Your task to perform on an android device: turn off javascript in the chrome app Image 0: 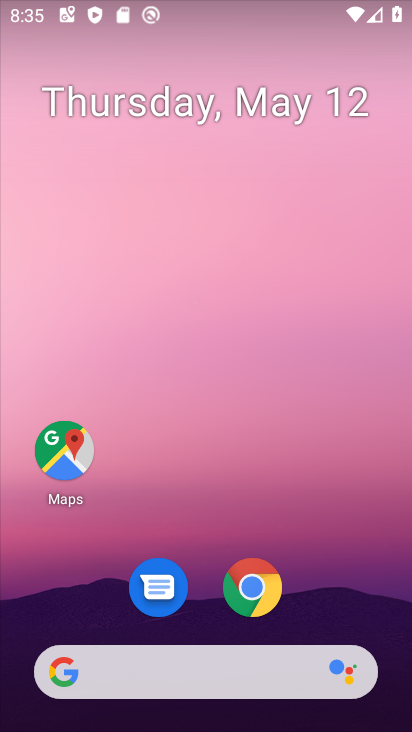
Step 0: drag from (381, 577) to (382, 206)
Your task to perform on an android device: turn off javascript in the chrome app Image 1: 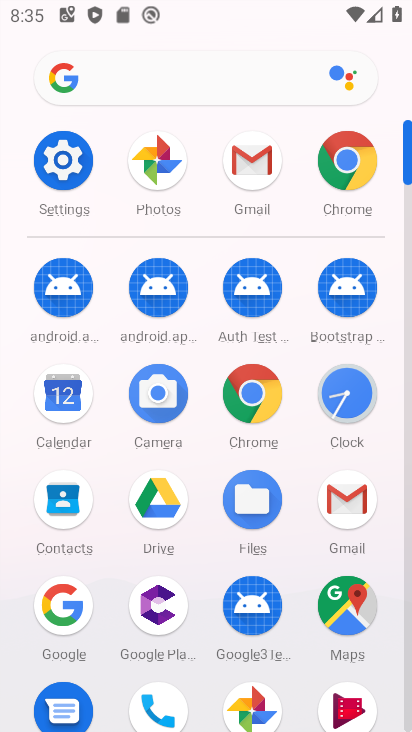
Step 1: click (272, 387)
Your task to perform on an android device: turn off javascript in the chrome app Image 2: 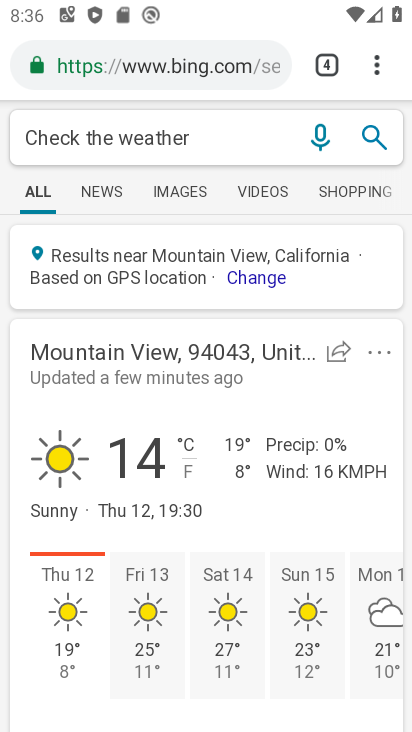
Step 2: click (364, 62)
Your task to perform on an android device: turn off javascript in the chrome app Image 3: 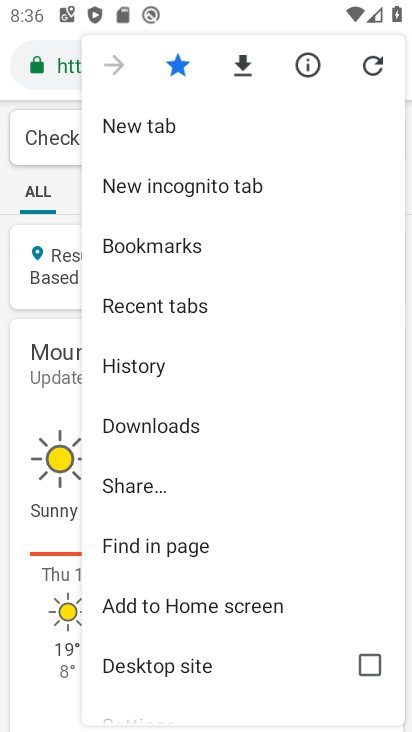
Step 3: drag from (213, 539) to (276, 191)
Your task to perform on an android device: turn off javascript in the chrome app Image 4: 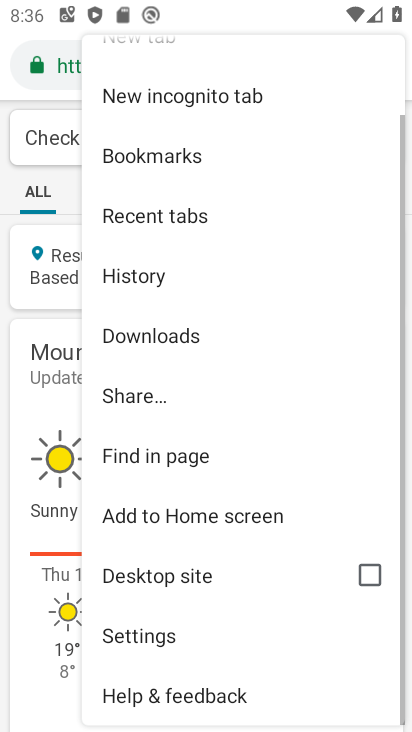
Step 4: click (186, 635)
Your task to perform on an android device: turn off javascript in the chrome app Image 5: 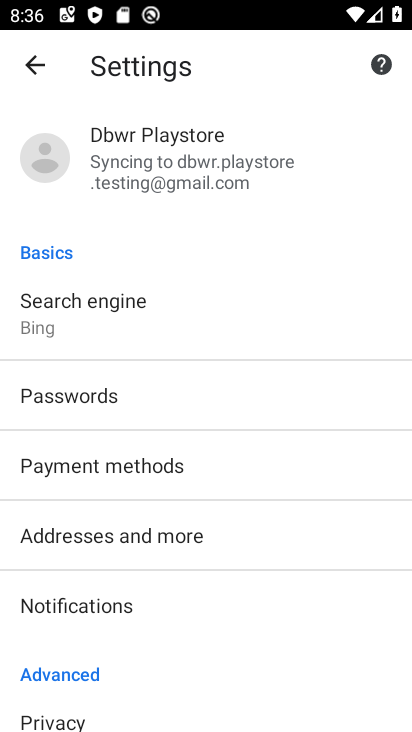
Step 5: drag from (264, 637) to (277, 220)
Your task to perform on an android device: turn off javascript in the chrome app Image 6: 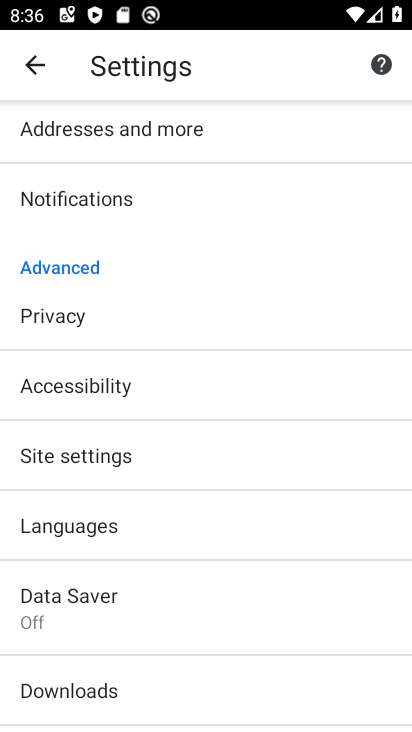
Step 6: drag from (223, 629) to (233, 217)
Your task to perform on an android device: turn off javascript in the chrome app Image 7: 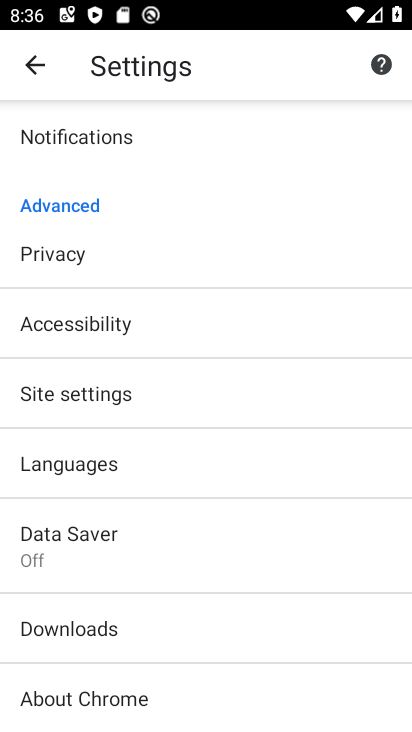
Step 7: drag from (221, 248) to (280, 440)
Your task to perform on an android device: turn off javascript in the chrome app Image 8: 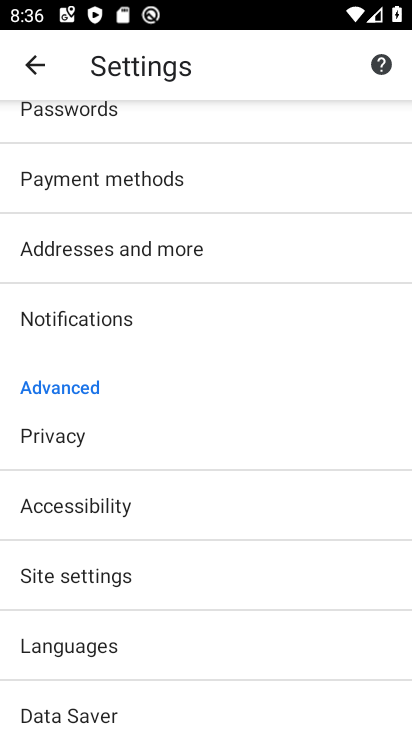
Step 8: click (138, 563)
Your task to perform on an android device: turn off javascript in the chrome app Image 9: 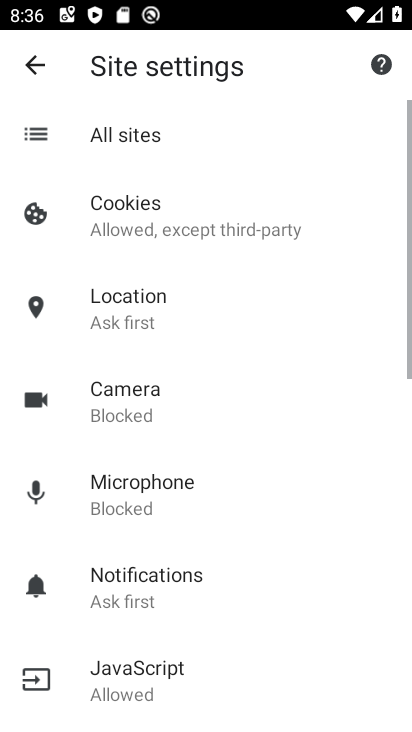
Step 9: drag from (238, 628) to (235, 426)
Your task to perform on an android device: turn off javascript in the chrome app Image 10: 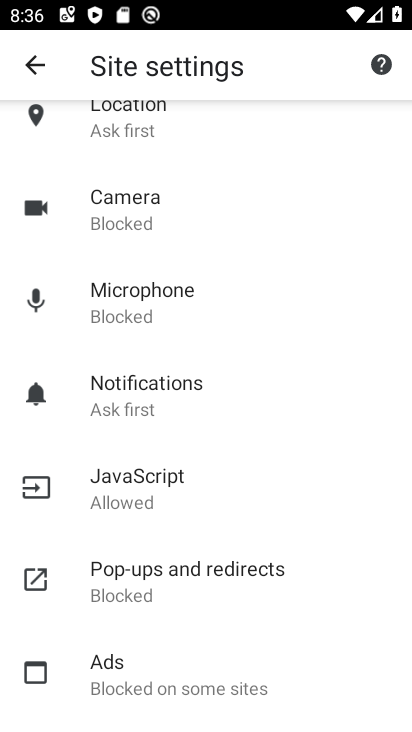
Step 10: click (148, 457)
Your task to perform on an android device: turn off javascript in the chrome app Image 11: 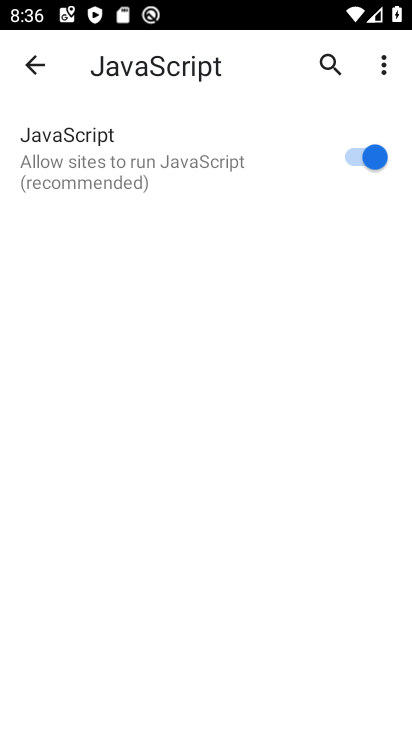
Step 11: click (341, 148)
Your task to perform on an android device: turn off javascript in the chrome app Image 12: 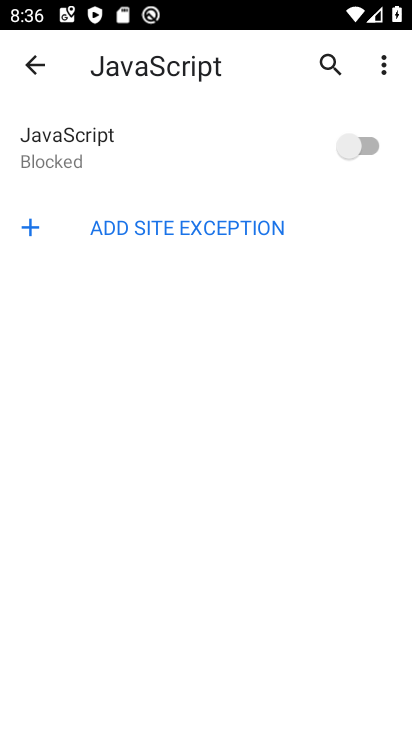
Step 12: task complete